Your task to perform on an android device: turn off location Image 0: 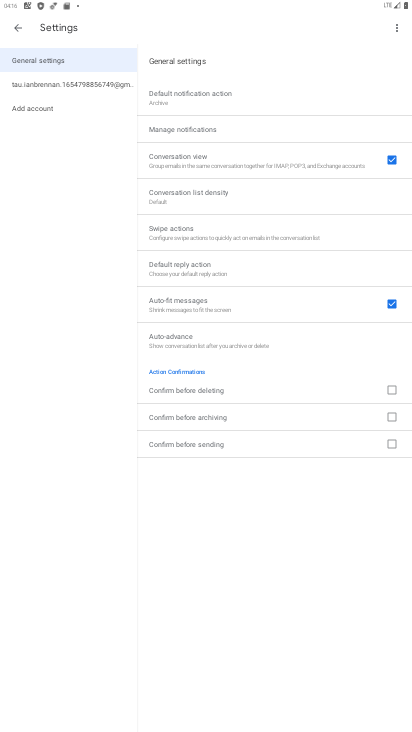
Step 0: press home button
Your task to perform on an android device: turn off location Image 1: 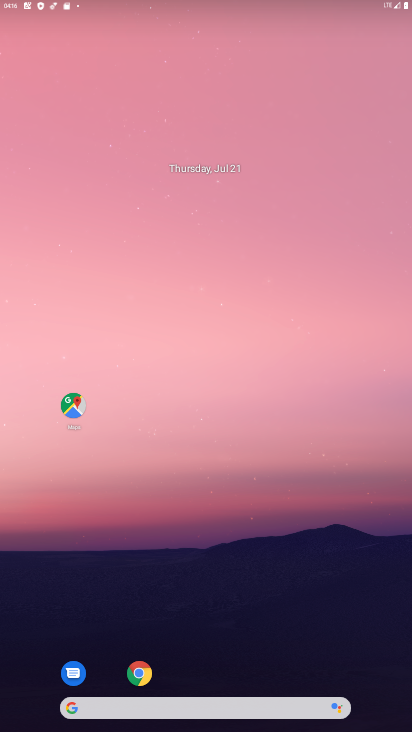
Step 1: drag from (317, 579) to (140, 75)
Your task to perform on an android device: turn off location Image 2: 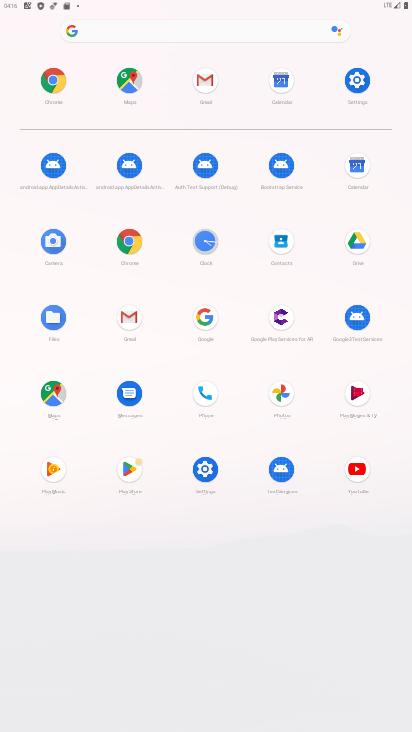
Step 2: click (357, 77)
Your task to perform on an android device: turn off location Image 3: 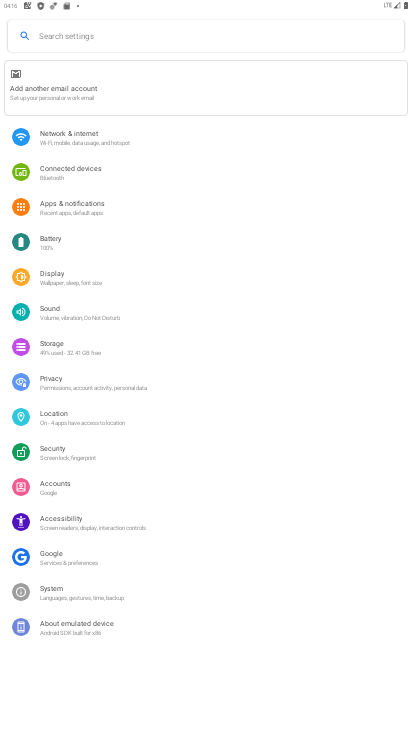
Step 3: click (51, 416)
Your task to perform on an android device: turn off location Image 4: 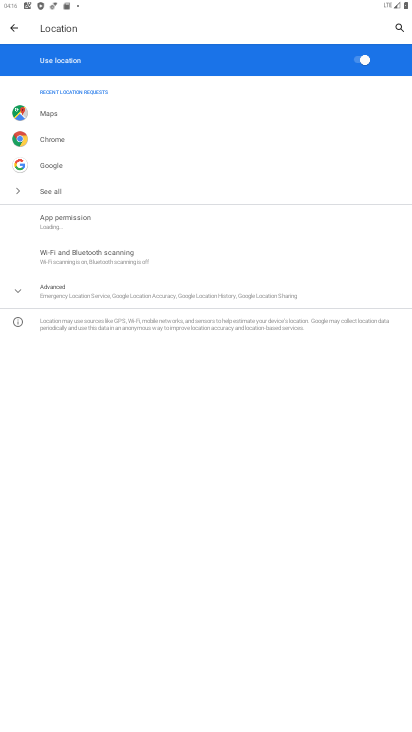
Step 4: click (346, 61)
Your task to perform on an android device: turn off location Image 5: 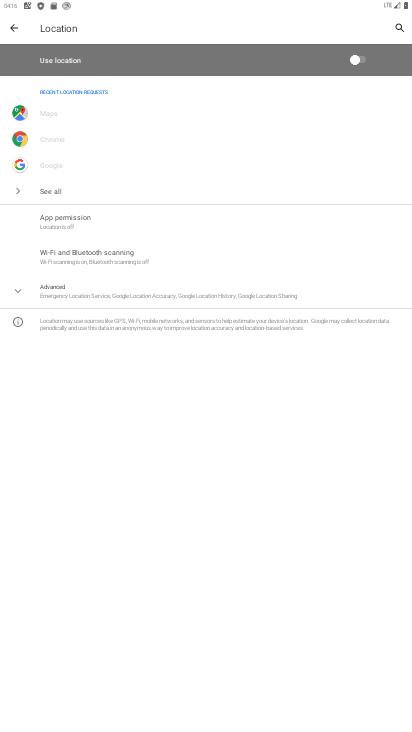
Step 5: task complete